Your task to perform on an android device: toggle data saver in the chrome app Image 0: 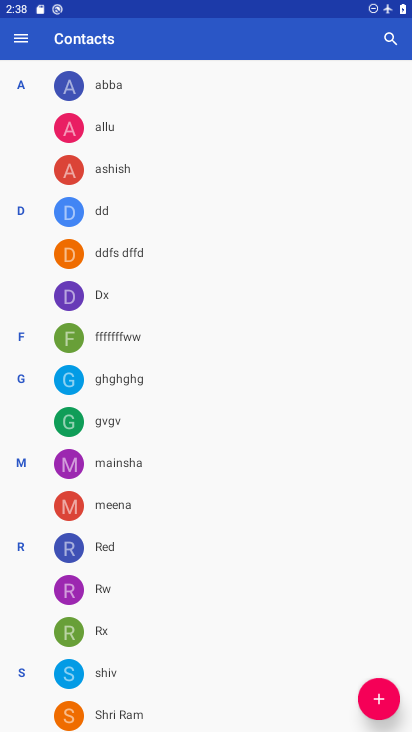
Step 0: press home button
Your task to perform on an android device: toggle data saver in the chrome app Image 1: 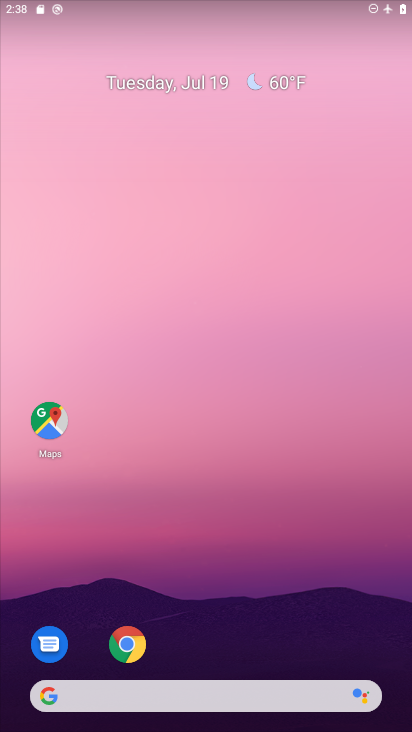
Step 1: drag from (214, 659) to (194, 127)
Your task to perform on an android device: toggle data saver in the chrome app Image 2: 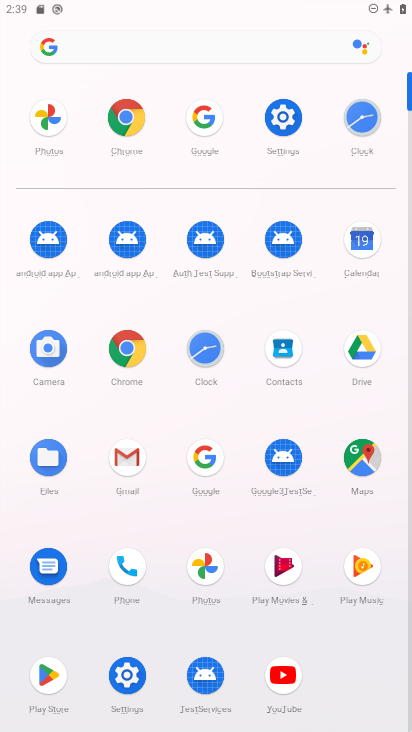
Step 2: click (134, 343)
Your task to perform on an android device: toggle data saver in the chrome app Image 3: 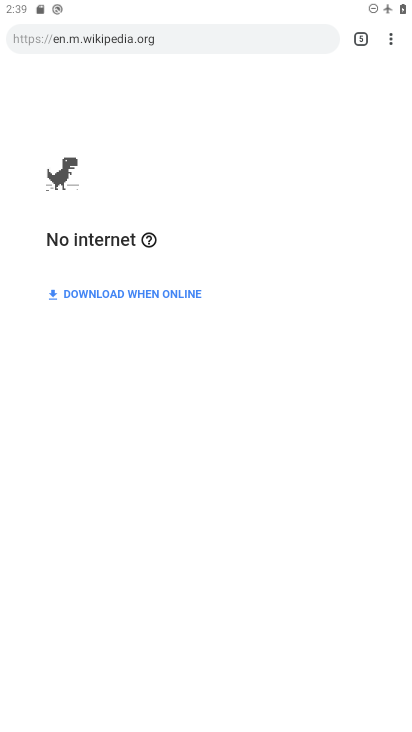
Step 3: click (387, 40)
Your task to perform on an android device: toggle data saver in the chrome app Image 4: 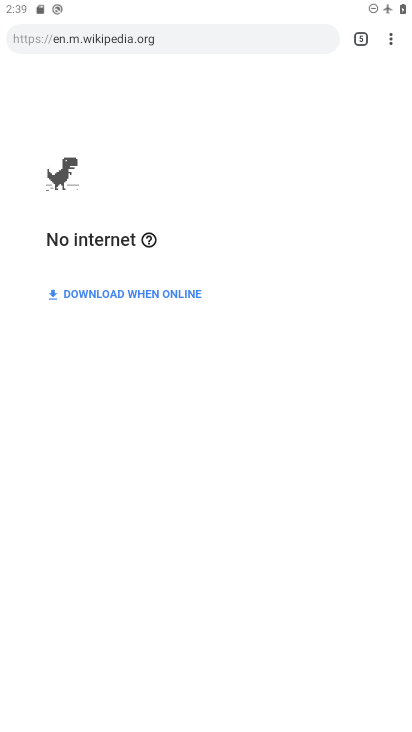
Step 4: drag from (388, 35) to (244, 426)
Your task to perform on an android device: toggle data saver in the chrome app Image 5: 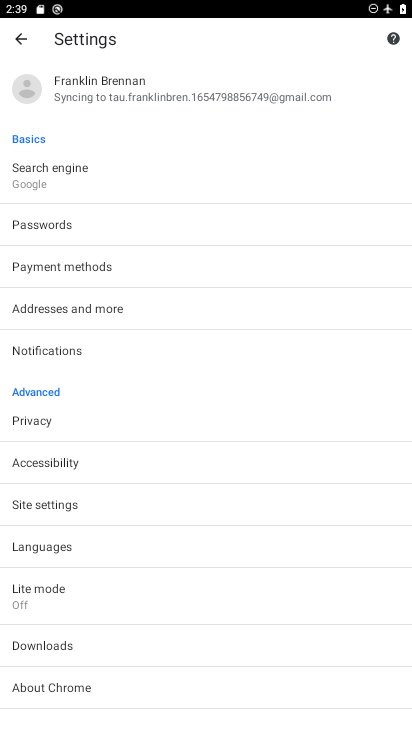
Step 5: click (38, 589)
Your task to perform on an android device: toggle data saver in the chrome app Image 6: 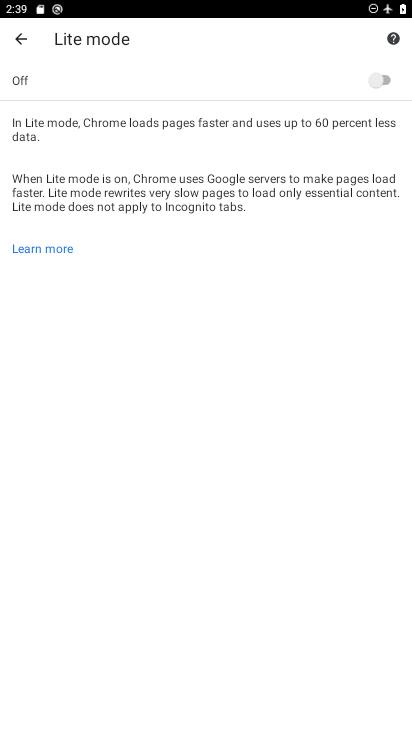
Step 6: click (389, 77)
Your task to perform on an android device: toggle data saver in the chrome app Image 7: 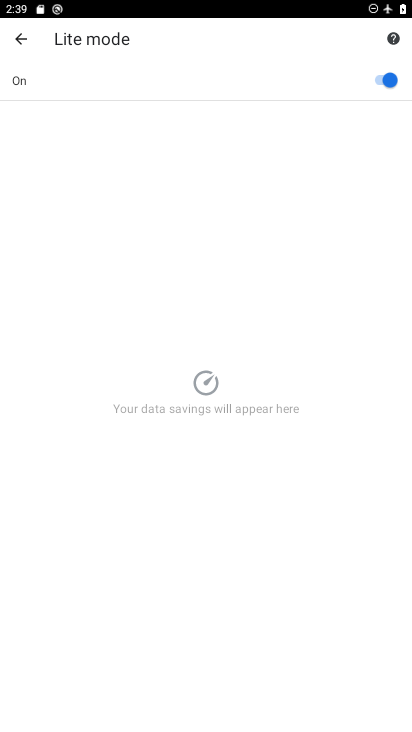
Step 7: task complete